Your task to perform on an android device: turn on wifi Image 0: 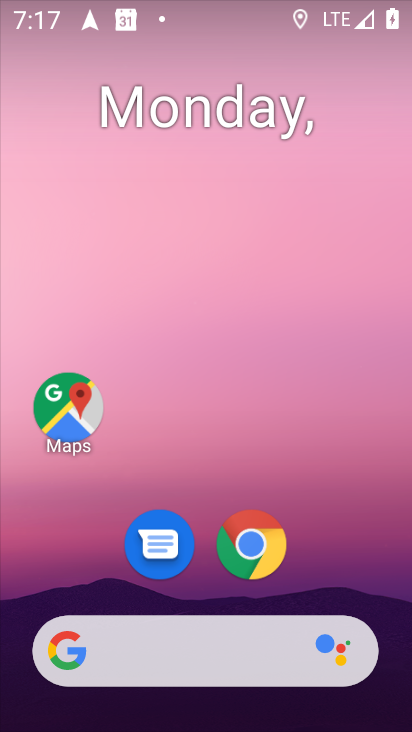
Step 0: drag from (333, 543) to (256, 68)
Your task to perform on an android device: turn on wifi Image 1: 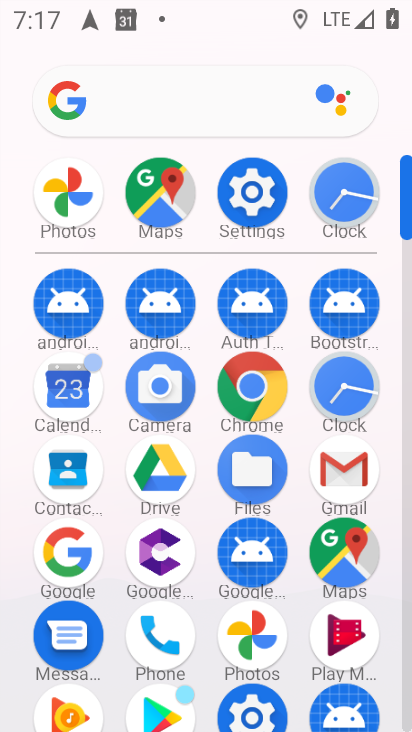
Step 1: click (253, 193)
Your task to perform on an android device: turn on wifi Image 2: 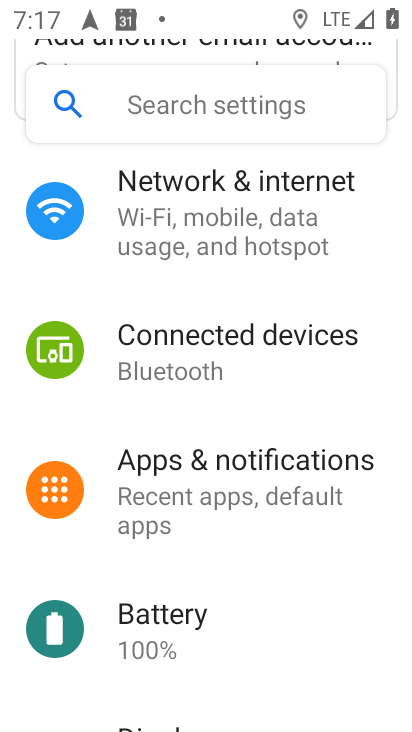
Step 2: click (190, 181)
Your task to perform on an android device: turn on wifi Image 3: 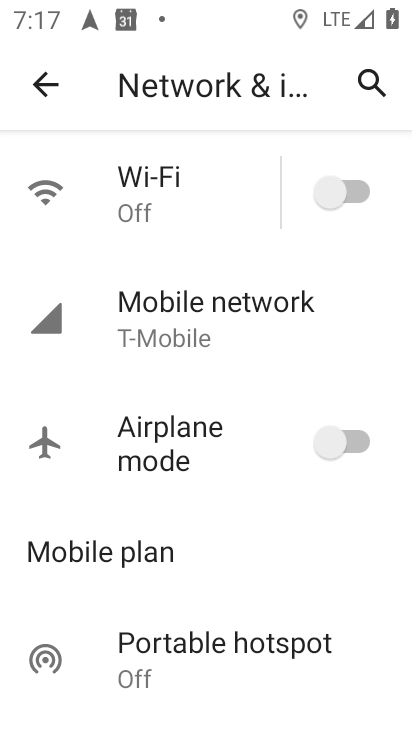
Step 3: click (321, 198)
Your task to perform on an android device: turn on wifi Image 4: 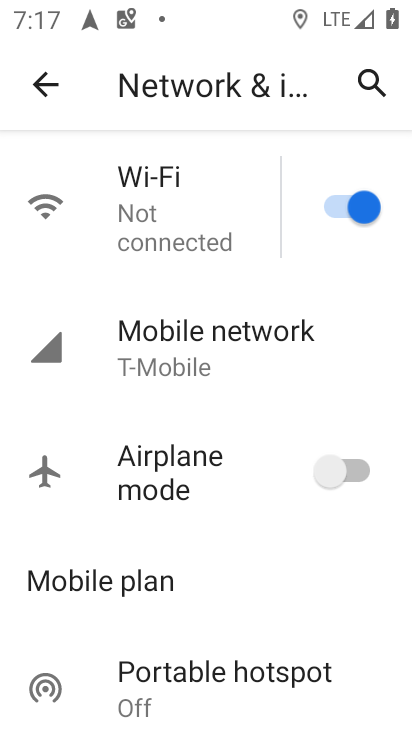
Step 4: task complete